Your task to perform on an android device: When is my next appointment? Image 0: 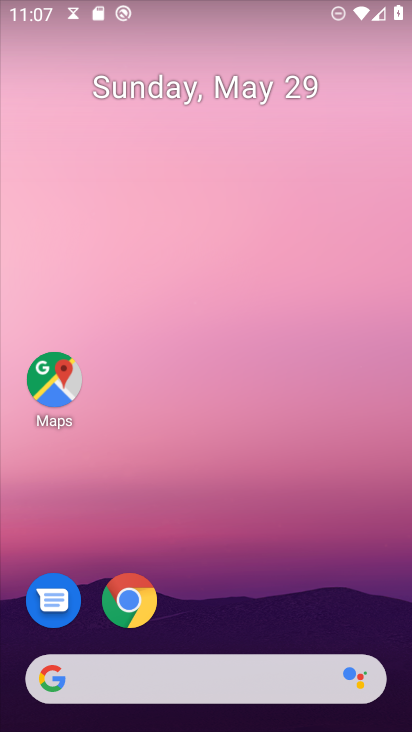
Step 0: drag from (223, 725) to (218, 62)
Your task to perform on an android device: When is my next appointment? Image 1: 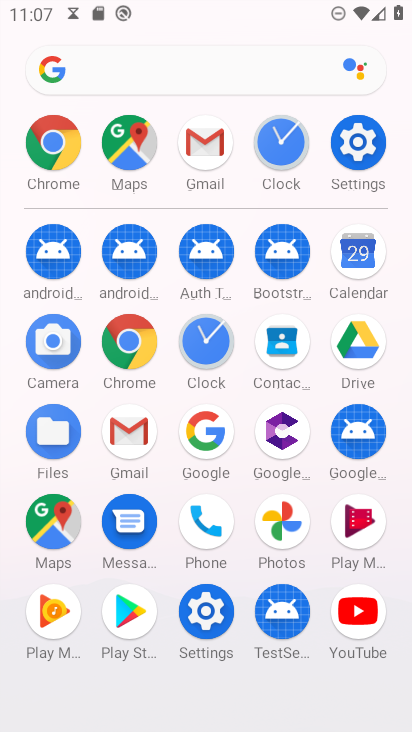
Step 1: click (354, 253)
Your task to perform on an android device: When is my next appointment? Image 2: 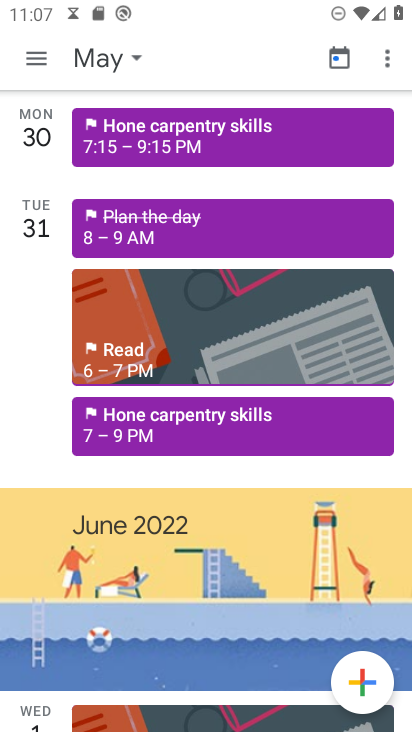
Step 2: task complete